Your task to perform on an android device: change the clock display to digital Image 0: 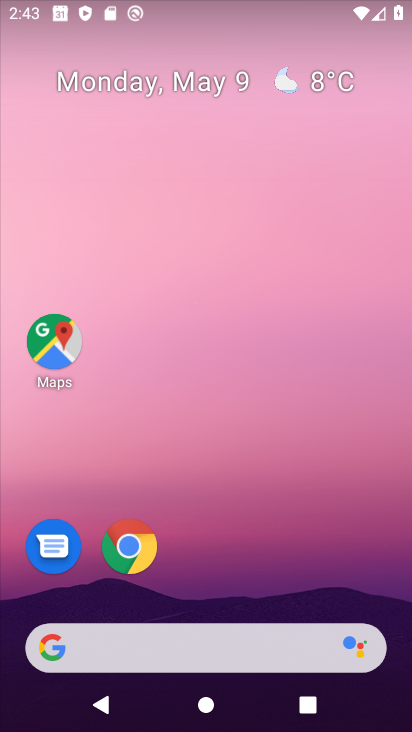
Step 0: drag from (304, 528) to (268, 26)
Your task to perform on an android device: change the clock display to digital Image 1: 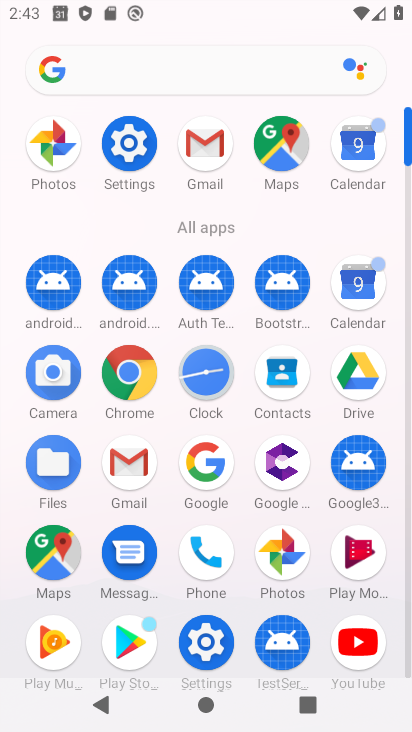
Step 1: click (213, 379)
Your task to perform on an android device: change the clock display to digital Image 2: 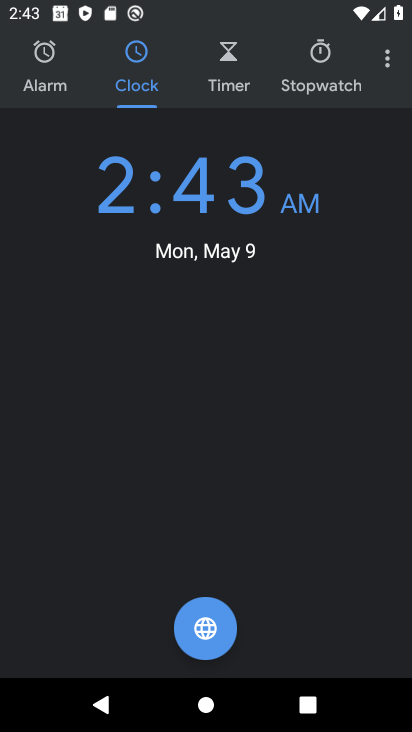
Step 2: task complete